Your task to perform on an android device: delete location history Image 0: 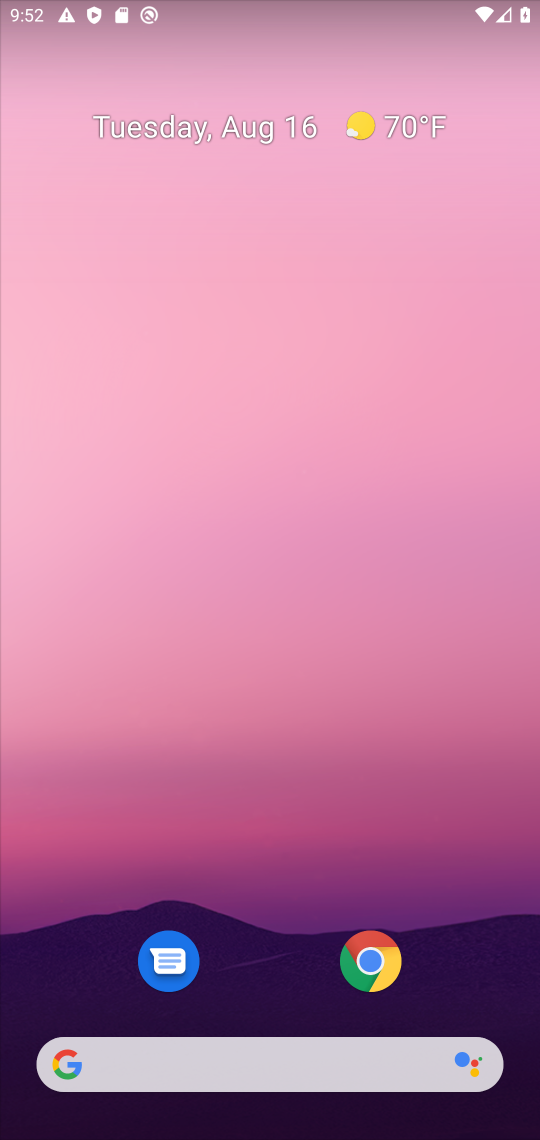
Step 0: drag from (298, 548) to (292, 429)
Your task to perform on an android device: delete location history Image 1: 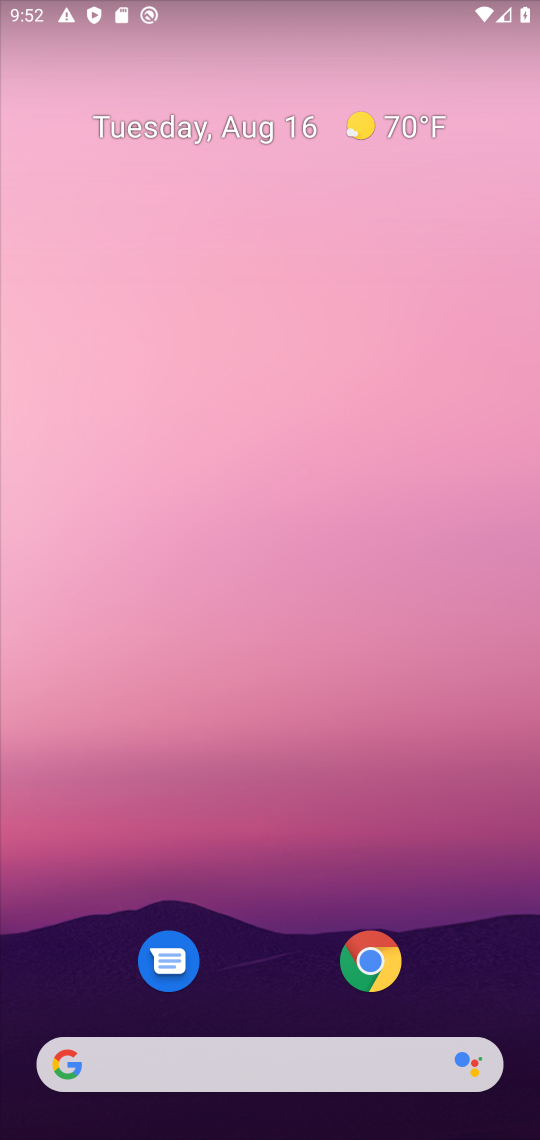
Step 1: task complete